Your task to perform on an android device: Go to eBay Image 0: 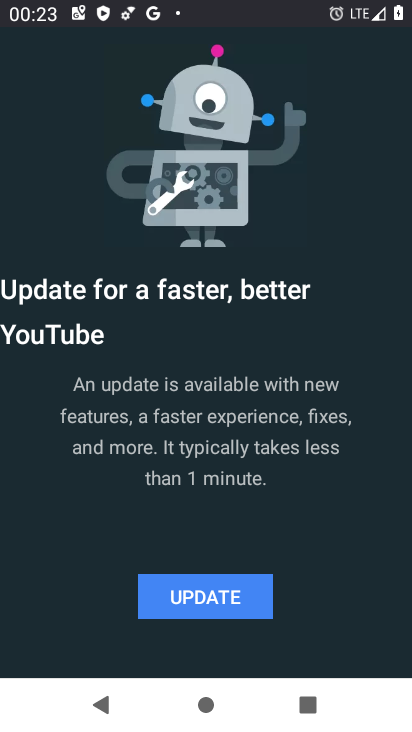
Step 0: press home button
Your task to perform on an android device: Go to eBay Image 1: 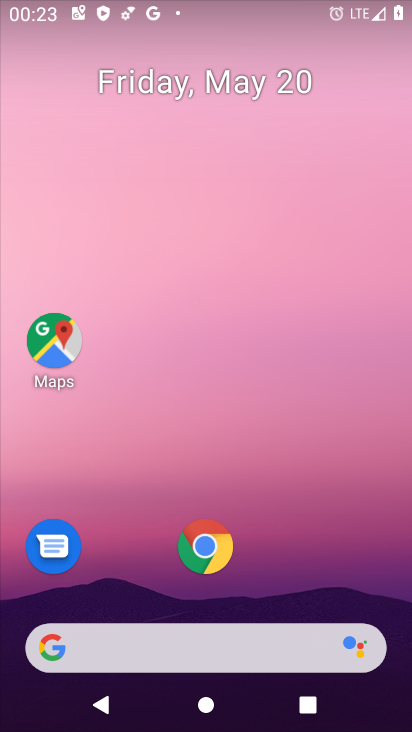
Step 1: click (209, 545)
Your task to perform on an android device: Go to eBay Image 2: 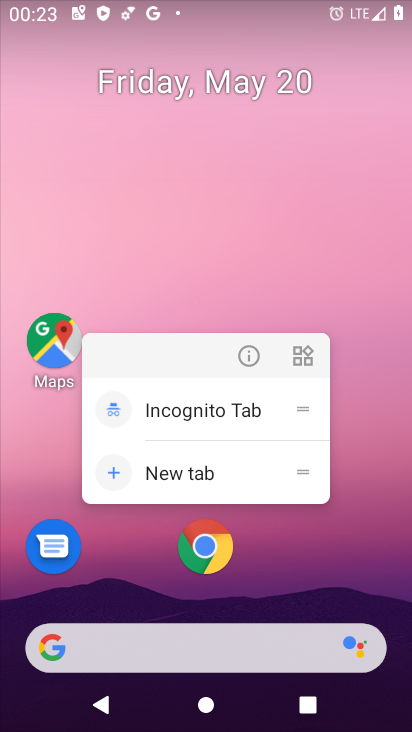
Step 2: click (208, 544)
Your task to perform on an android device: Go to eBay Image 3: 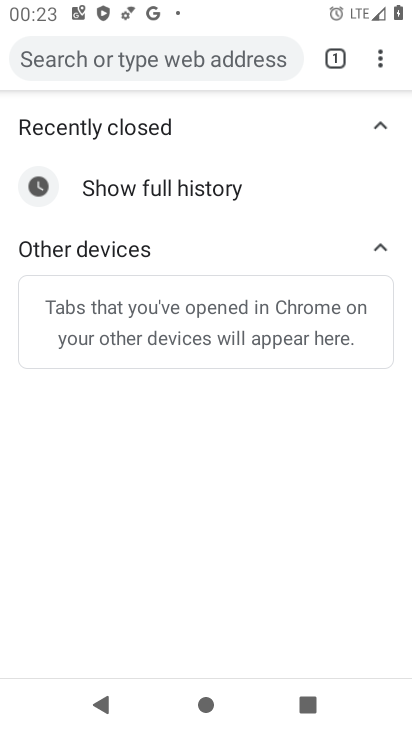
Step 3: click (201, 68)
Your task to perform on an android device: Go to eBay Image 4: 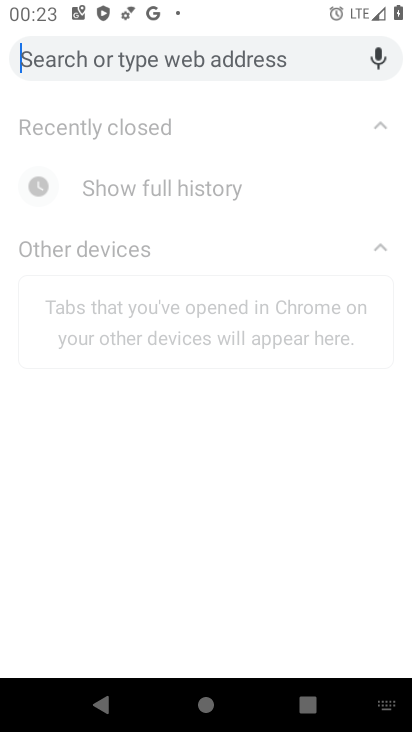
Step 4: type "ebay"
Your task to perform on an android device: Go to eBay Image 5: 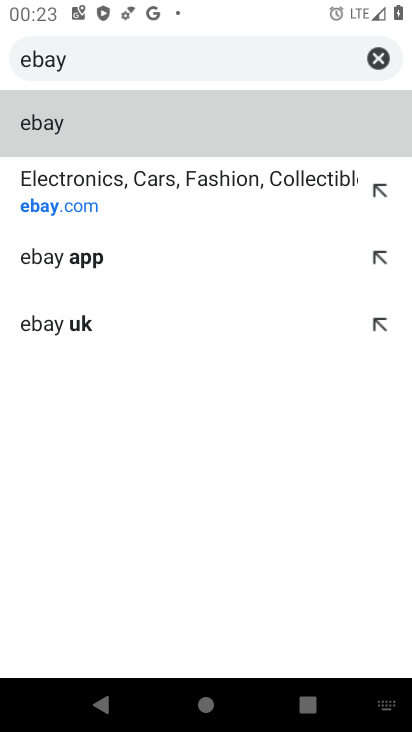
Step 5: click (88, 201)
Your task to perform on an android device: Go to eBay Image 6: 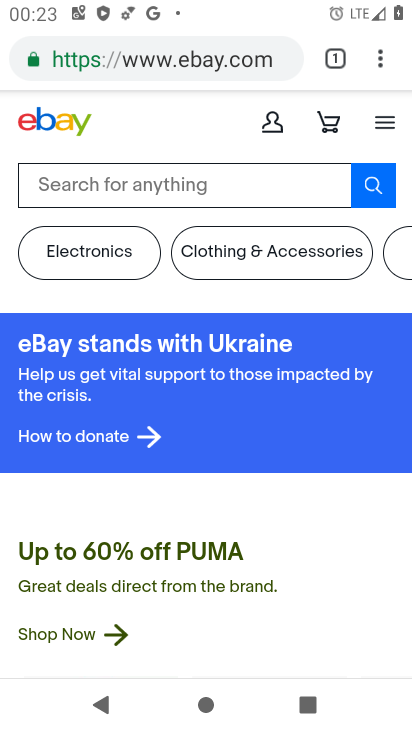
Step 6: task complete